Your task to perform on an android device: Check the weather Image 0: 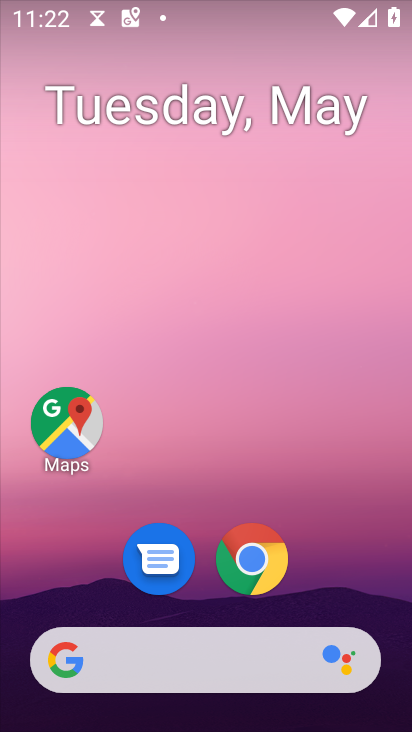
Step 0: drag from (341, 570) to (333, 39)
Your task to perform on an android device: Check the weather Image 1: 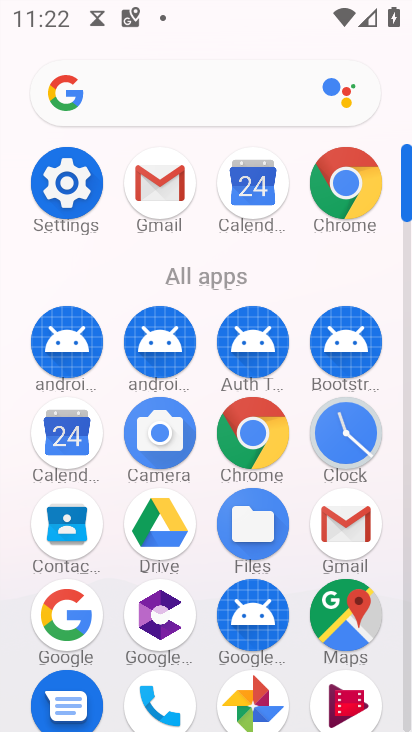
Step 1: click (65, 95)
Your task to perform on an android device: Check the weather Image 2: 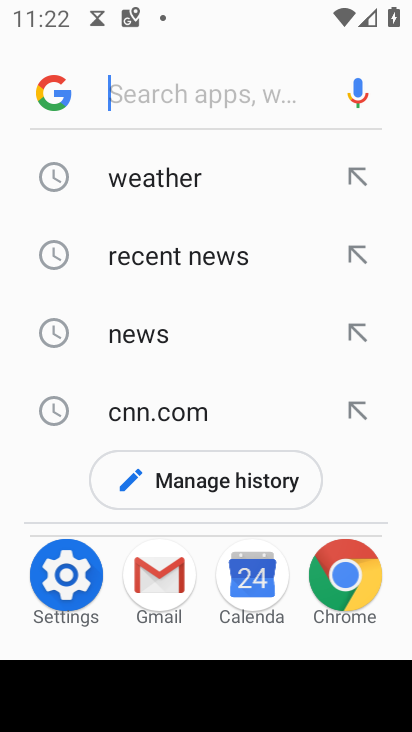
Step 2: click (59, 107)
Your task to perform on an android device: Check the weather Image 3: 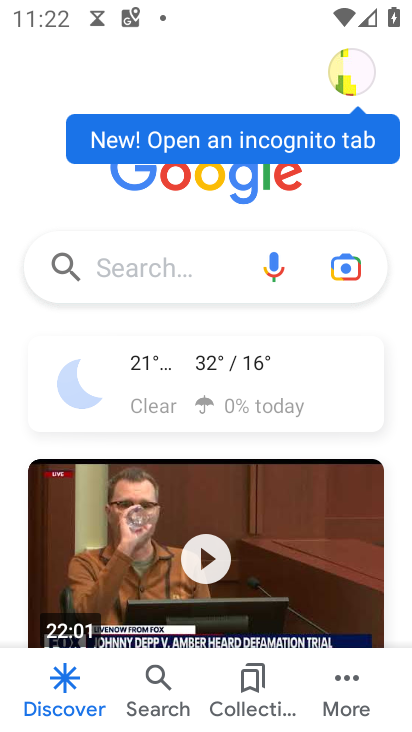
Step 3: click (228, 361)
Your task to perform on an android device: Check the weather Image 4: 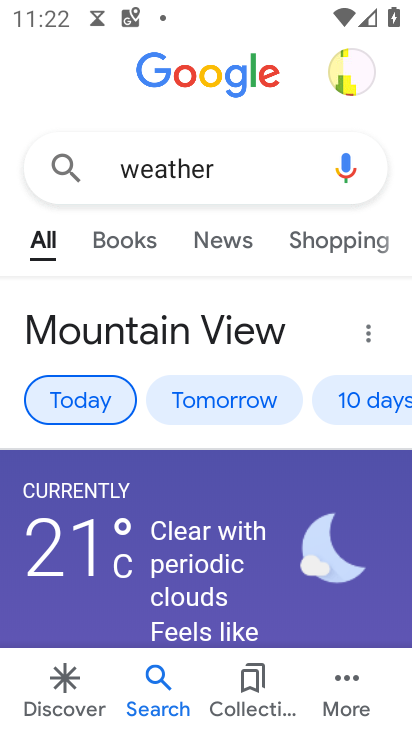
Step 4: task complete